Your task to perform on an android device: show emergency info Image 0: 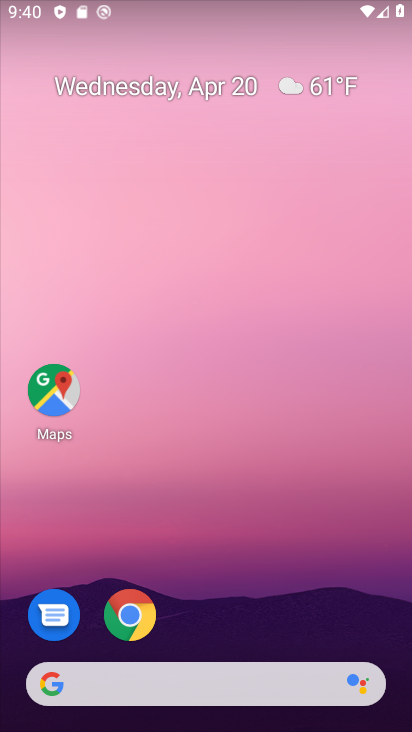
Step 0: drag from (283, 629) to (204, 58)
Your task to perform on an android device: show emergency info Image 1: 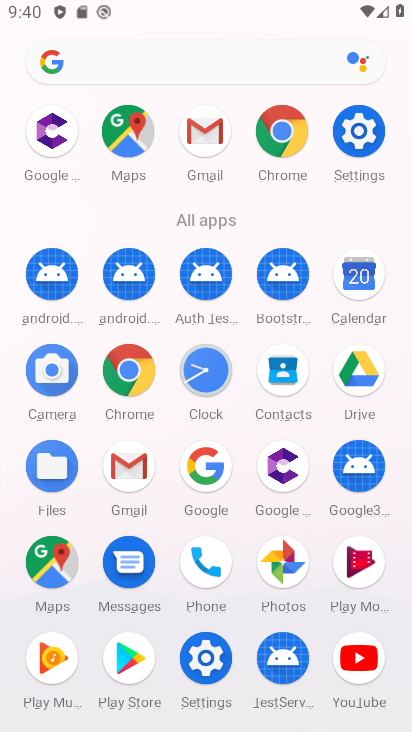
Step 1: click (335, 135)
Your task to perform on an android device: show emergency info Image 2: 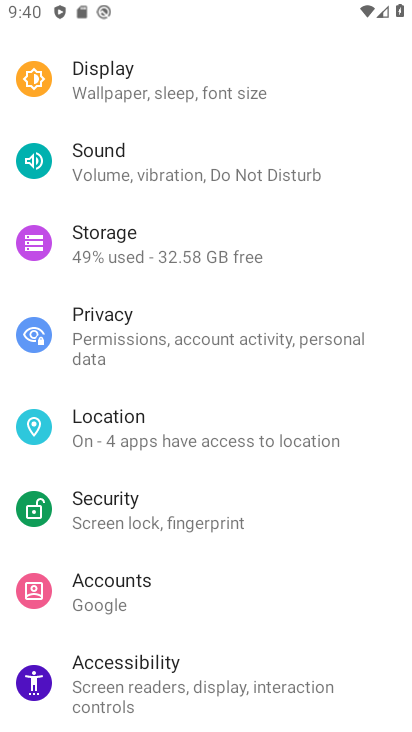
Step 2: drag from (178, 670) to (189, 108)
Your task to perform on an android device: show emergency info Image 3: 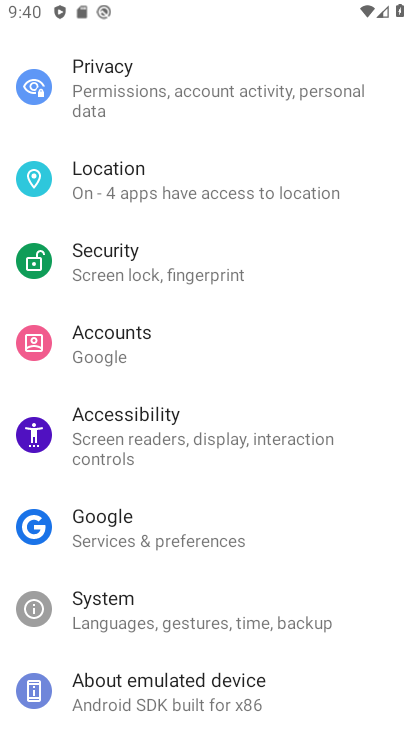
Step 3: click (230, 695)
Your task to perform on an android device: show emergency info Image 4: 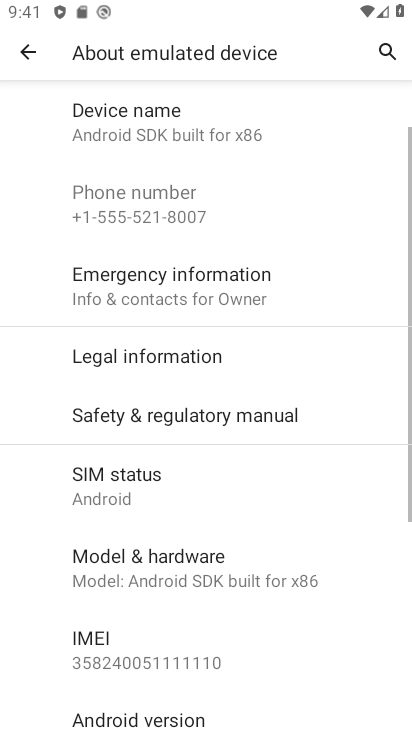
Step 4: click (153, 274)
Your task to perform on an android device: show emergency info Image 5: 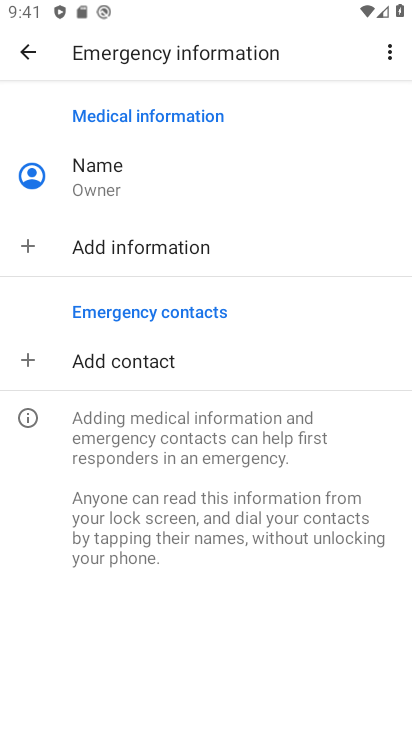
Step 5: task complete